Your task to perform on an android device: toggle airplane mode Image 0: 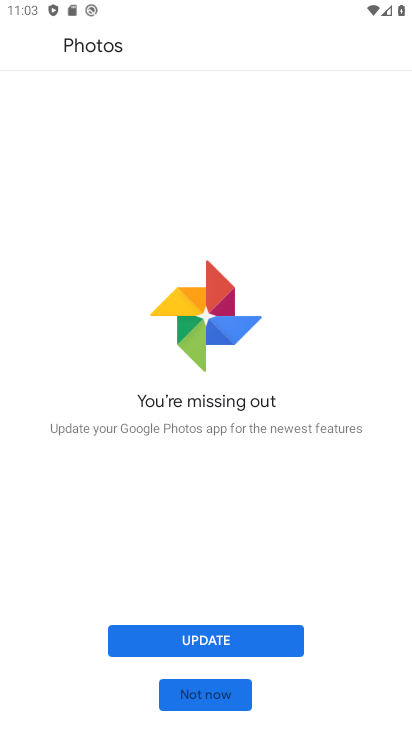
Step 0: press home button
Your task to perform on an android device: toggle airplane mode Image 1: 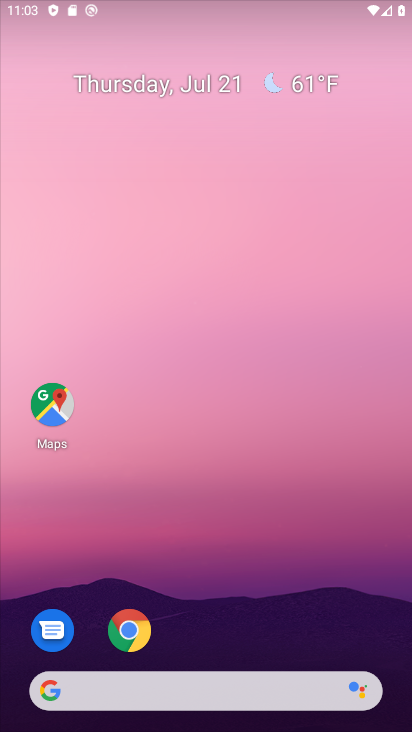
Step 1: drag from (216, 665) to (216, 113)
Your task to perform on an android device: toggle airplane mode Image 2: 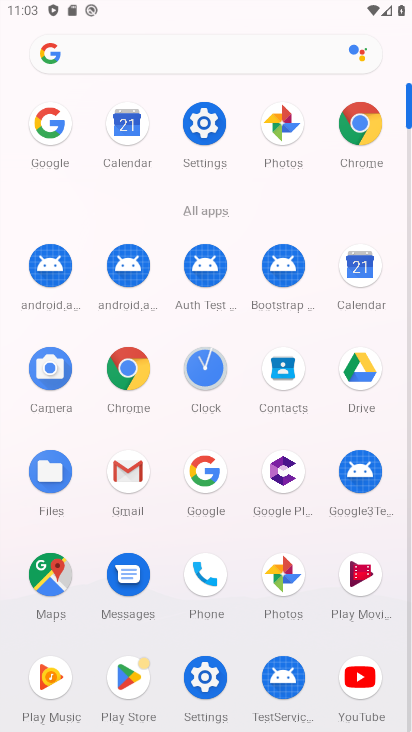
Step 2: click (191, 121)
Your task to perform on an android device: toggle airplane mode Image 3: 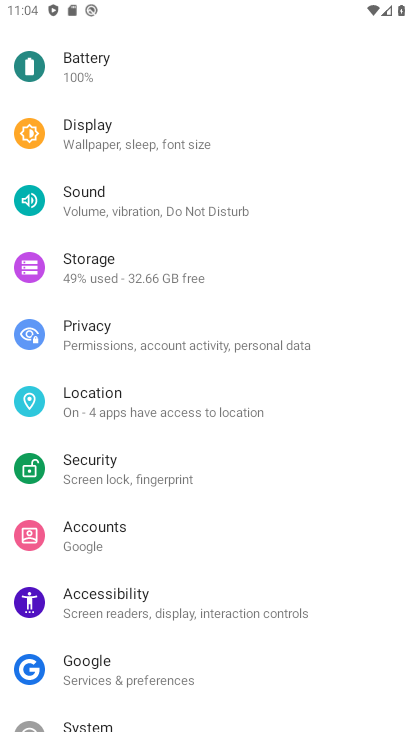
Step 3: drag from (115, 54) to (169, 482)
Your task to perform on an android device: toggle airplane mode Image 4: 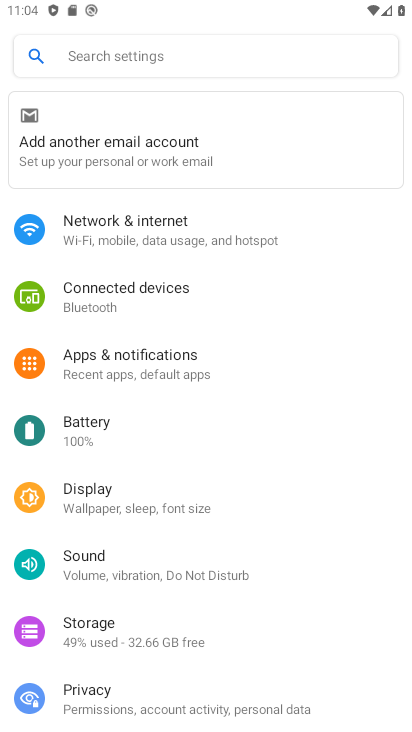
Step 4: click (119, 220)
Your task to perform on an android device: toggle airplane mode Image 5: 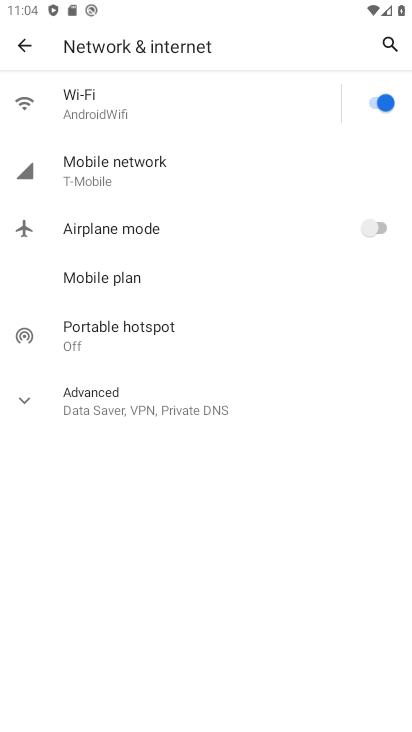
Step 5: click (366, 229)
Your task to perform on an android device: toggle airplane mode Image 6: 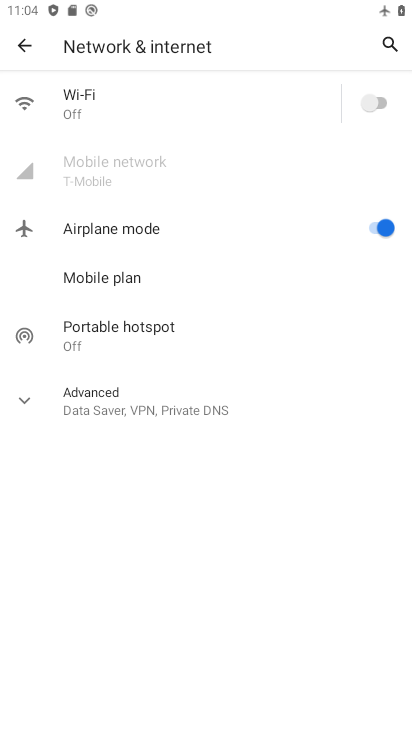
Step 6: task complete